Your task to perform on an android device: Open calendar and show me the second week of next month Image 0: 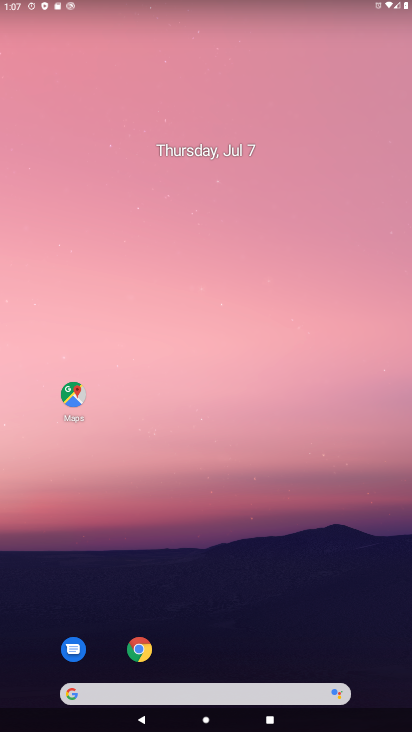
Step 0: drag from (217, 673) to (206, 189)
Your task to perform on an android device: Open calendar and show me the second week of next month Image 1: 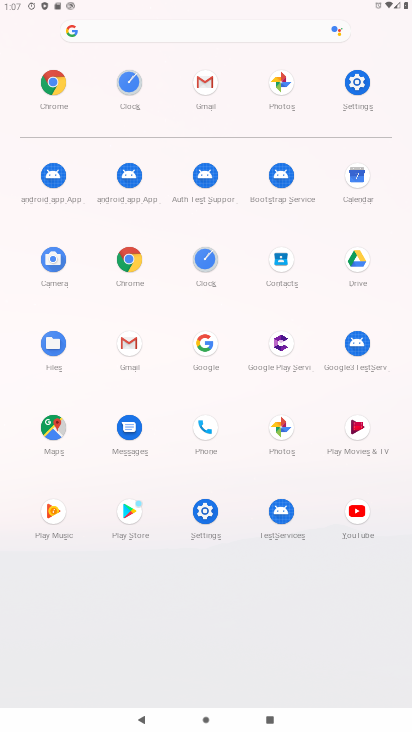
Step 1: click (357, 197)
Your task to perform on an android device: Open calendar and show me the second week of next month Image 2: 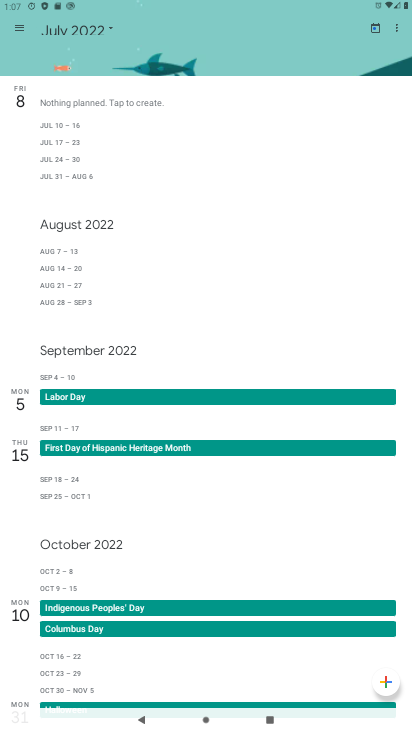
Step 2: click (17, 28)
Your task to perform on an android device: Open calendar and show me the second week of next month Image 3: 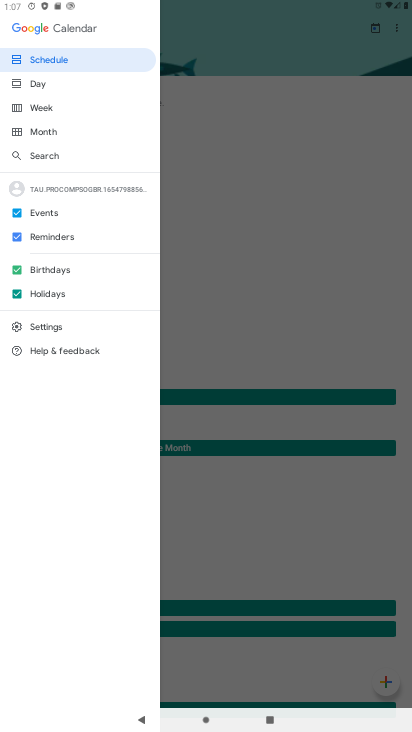
Step 3: click (35, 107)
Your task to perform on an android device: Open calendar and show me the second week of next month Image 4: 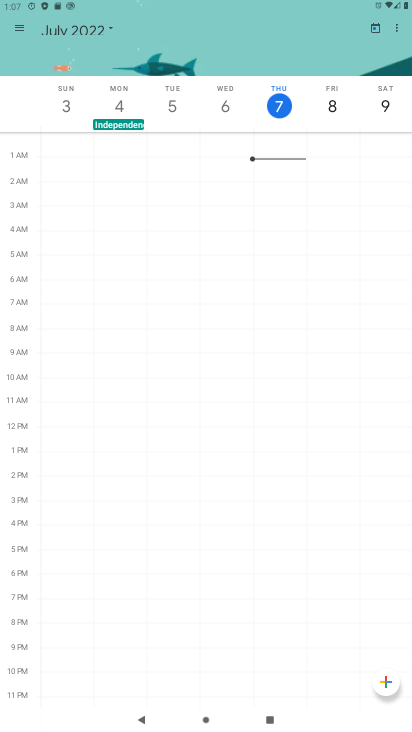
Step 4: task complete